Your task to perform on an android device: Show me popular games on the Play Store Image 0: 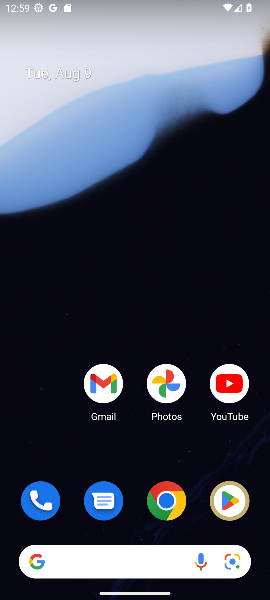
Step 0: click (234, 503)
Your task to perform on an android device: Show me popular games on the Play Store Image 1: 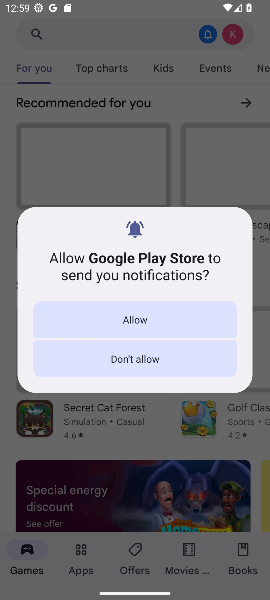
Step 1: click (203, 323)
Your task to perform on an android device: Show me popular games on the Play Store Image 2: 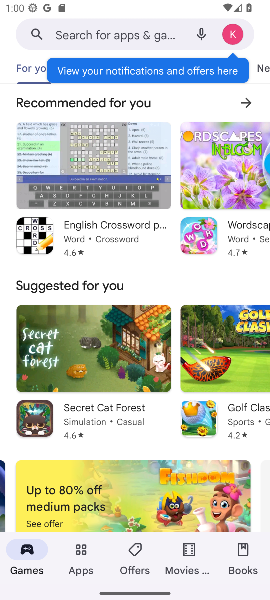
Step 2: click (36, 72)
Your task to perform on an android device: Show me popular games on the Play Store Image 3: 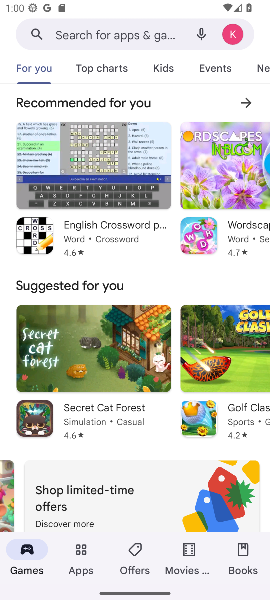
Step 3: click (101, 64)
Your task to perform on an android device: Show me popular games on the Play Store Image 4: 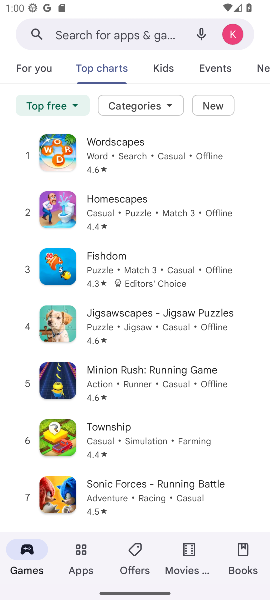
Step 4: task complete